Your task to perform on an android device: check android version Image 0: 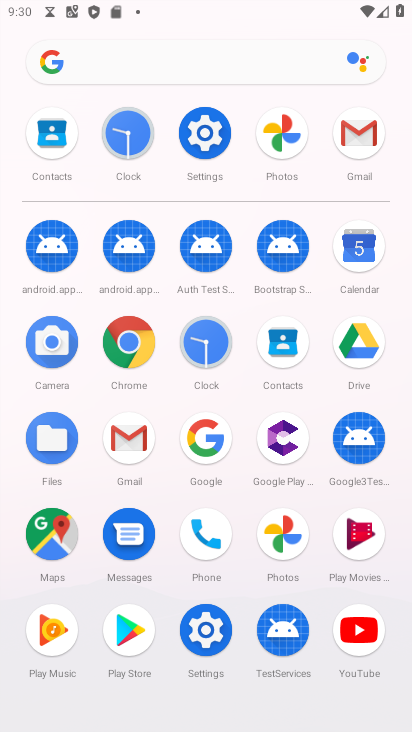
Step 0: click (210, 647)
Your task to perform on an android device: check android version Image 1: 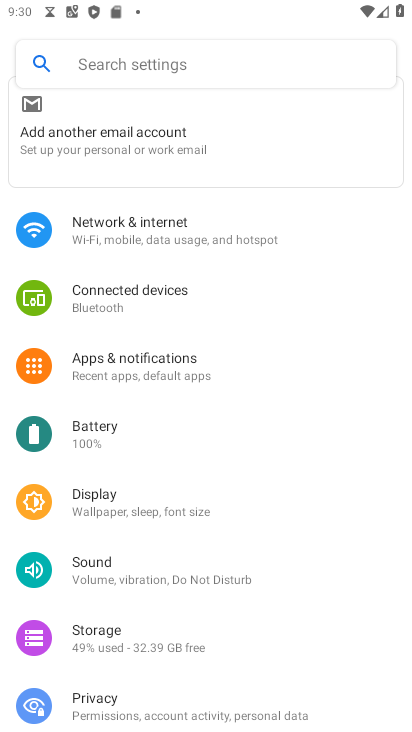
Step 1: drag from (242, 665) to (289, 9)
Your task to perform on an android device: check android version Image 2: 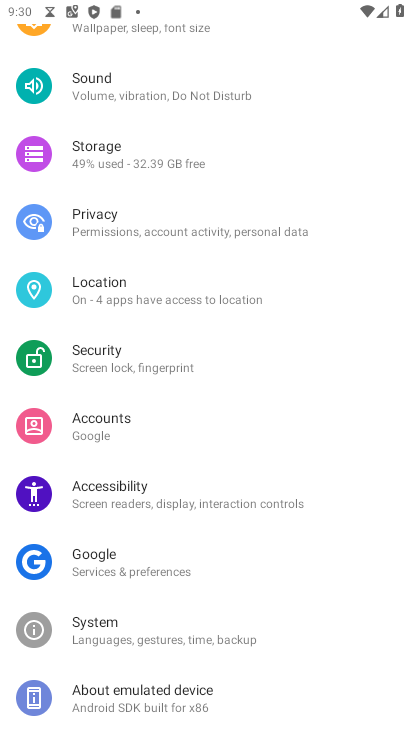
Step 2: click (128, 695)
Your task to perform on an android device: check android version Image 3: 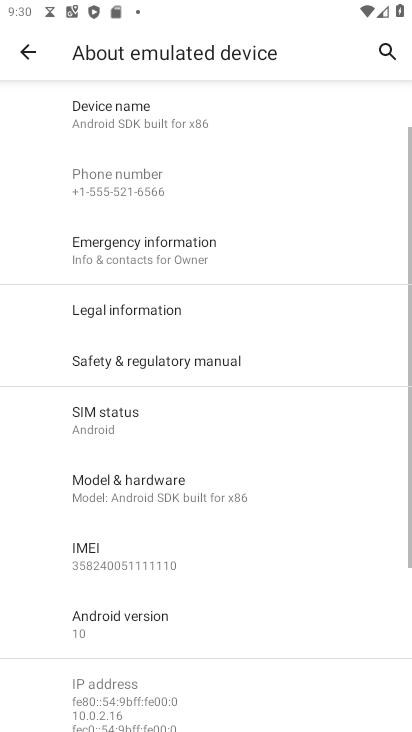
Step 3: drag from (192, 434) to (184, 728)
Your task to perform on an android device: check android version Image 4: 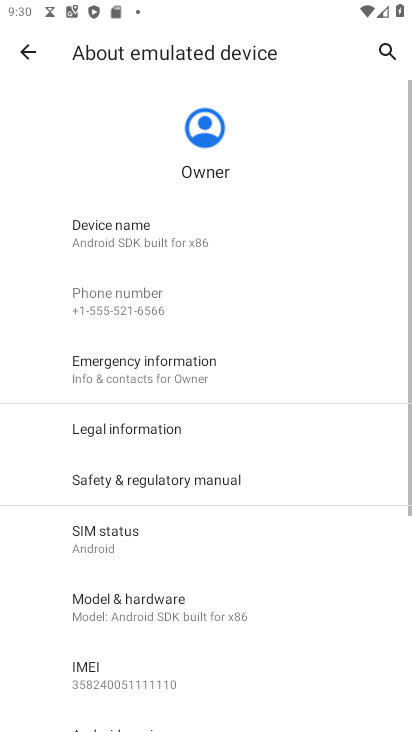
Step 4: drag from (276, 615) to (254, 267)
Your task to perform on an android device: check android version Image 5: 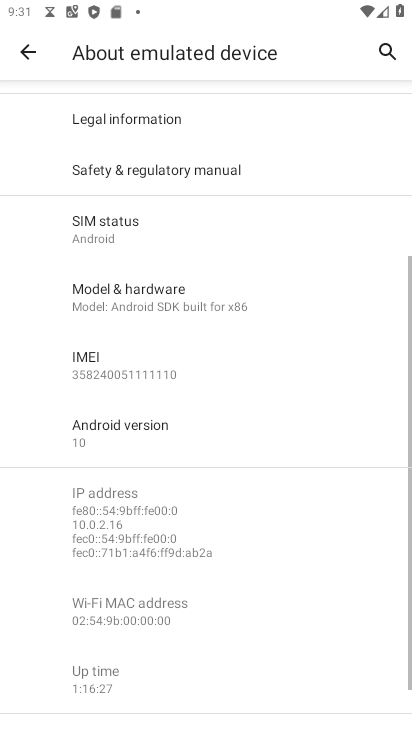
Step 5: click (158, 426)
Your task to perform on an android device: check android version Image 6: 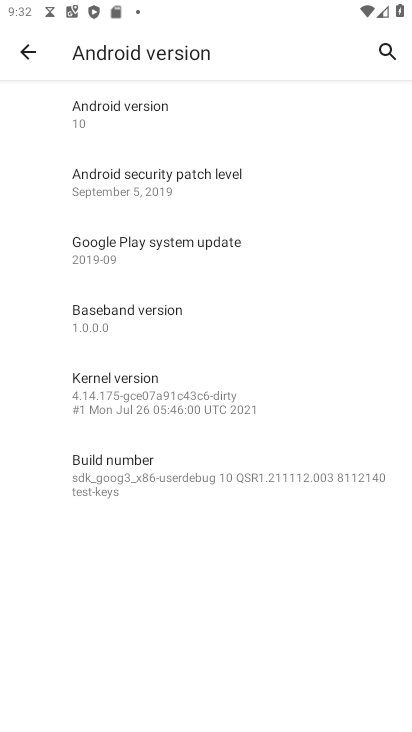
Step 6: task complete